Your task to perform on an android device: open app "Facebook Lite" (install if not already installed) and go to login screen Image 0: 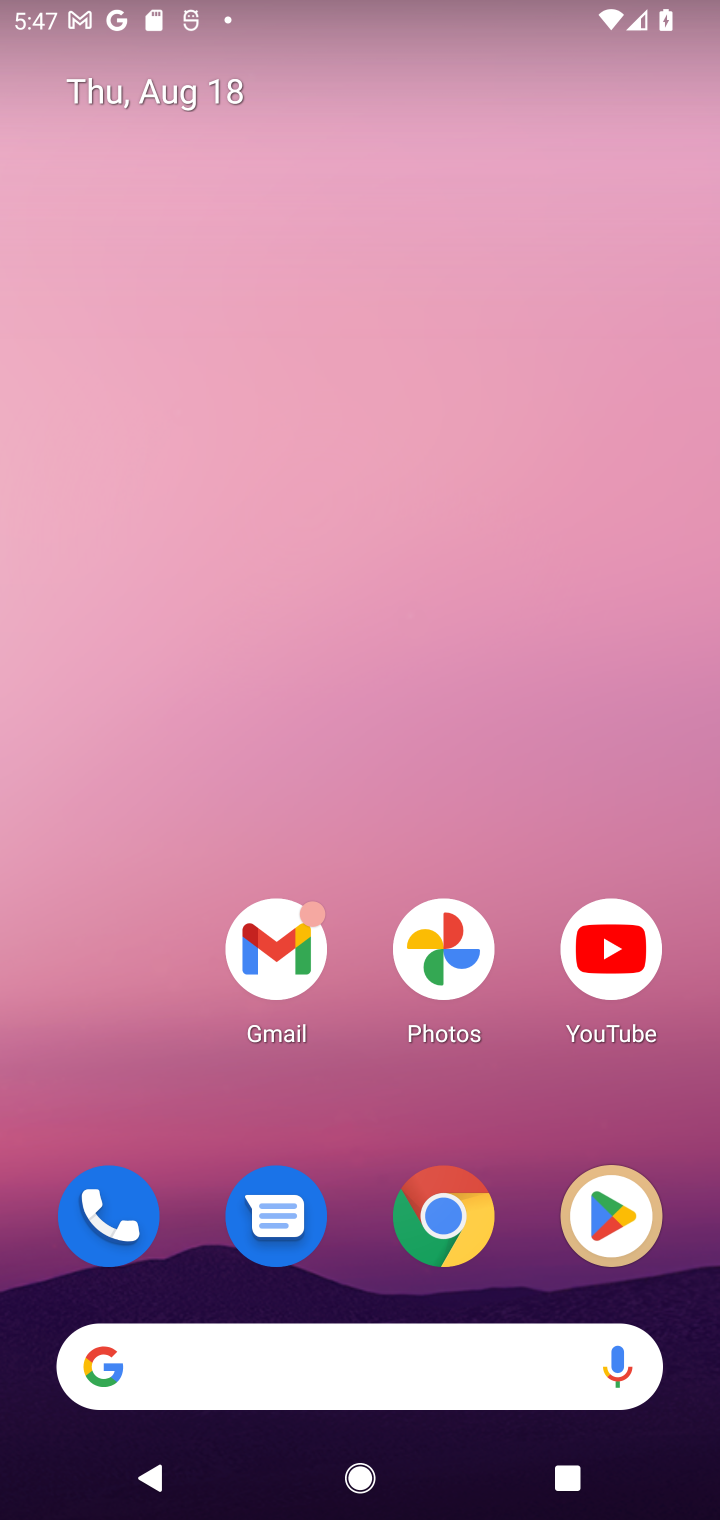
Step 0: click (616, 1219)
Your task to perform on an android device: open app "Facebook Lite" (install if not already installed) and go to login screen Image 1: 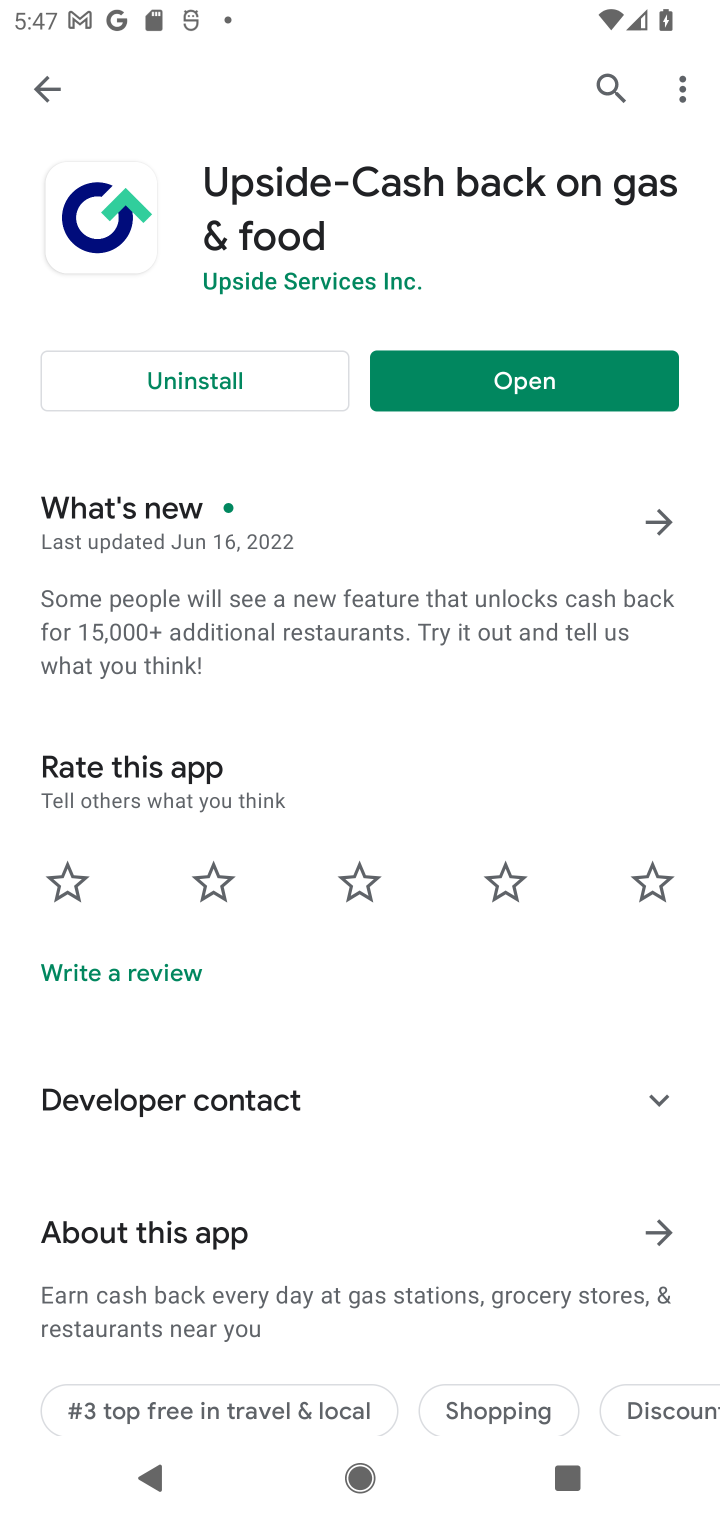
Step 1: click (590, 76)
Your task to perform on an android device: open app "Facebook Lite" (install if not already installed) and go to login screen Image 2: 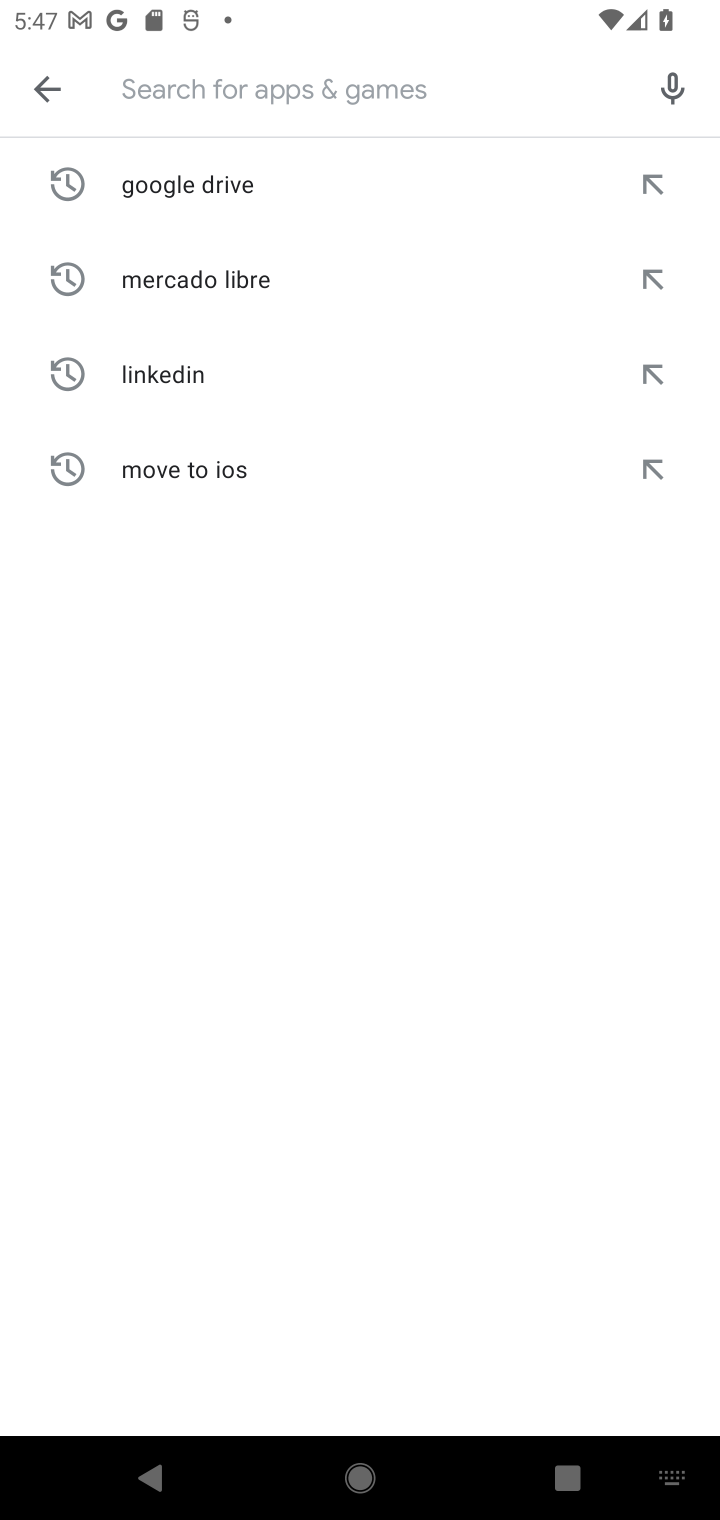
Step 2: type "Facebook Lite"
Your task to perform on an android device: open app "Facebook Lite" (install if not already installed) and go to login screen Image 3: 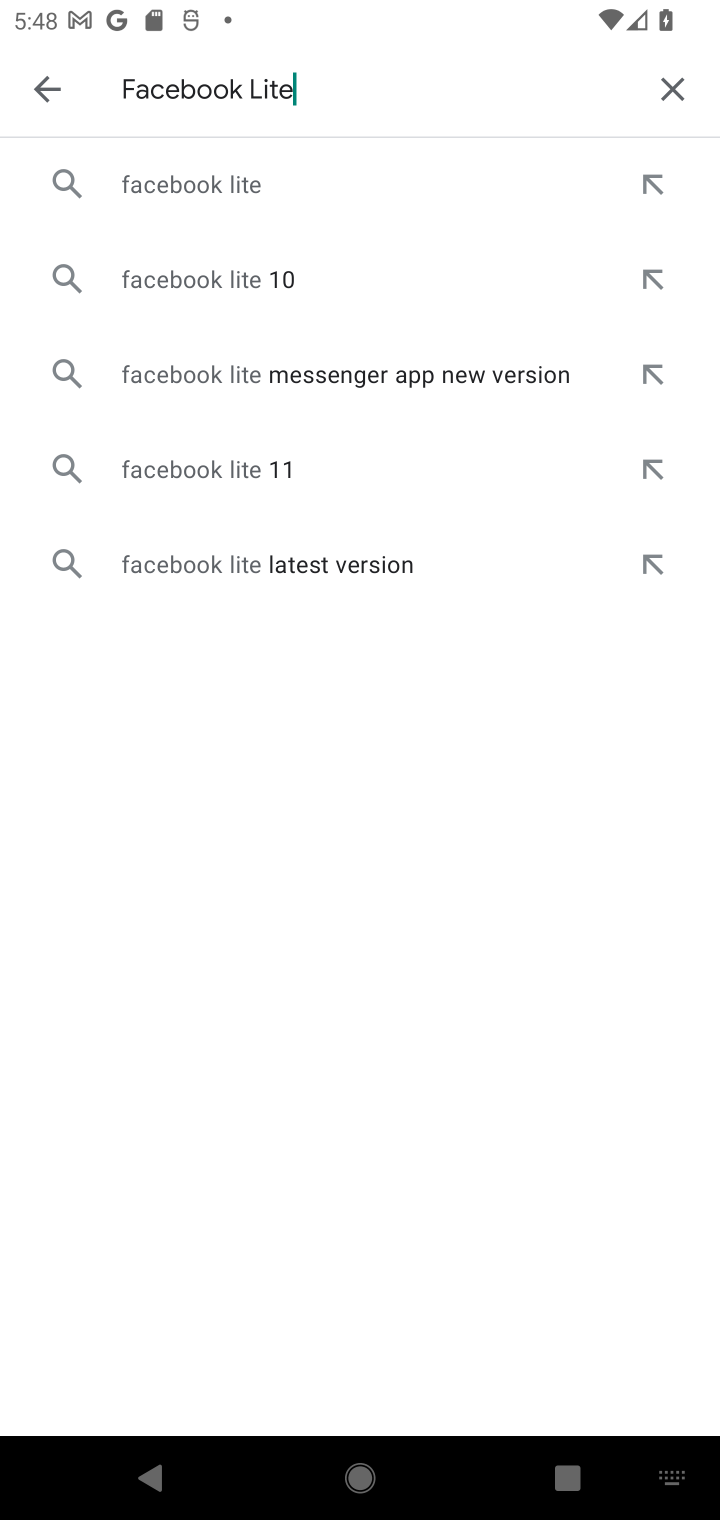
Step 3: click (194, 191)
Your task to perform on an android device: open app "Facebook Lite" (install if not already installed) and go to login screen Image 4: 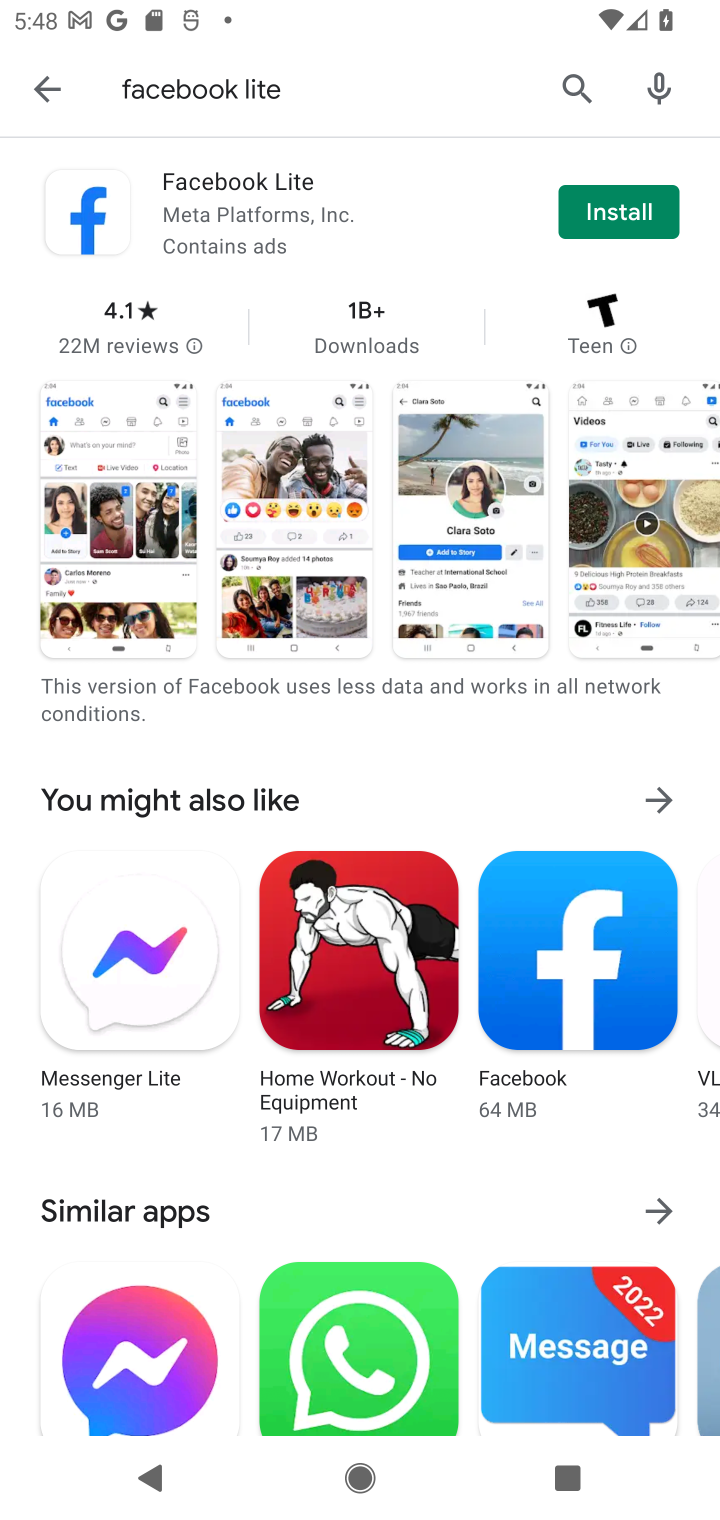
Step 4: click (610, 205)
Your task to perform on an android device: open app "Facebook Lite" (install if not already installed) and go to login screen Image 5: 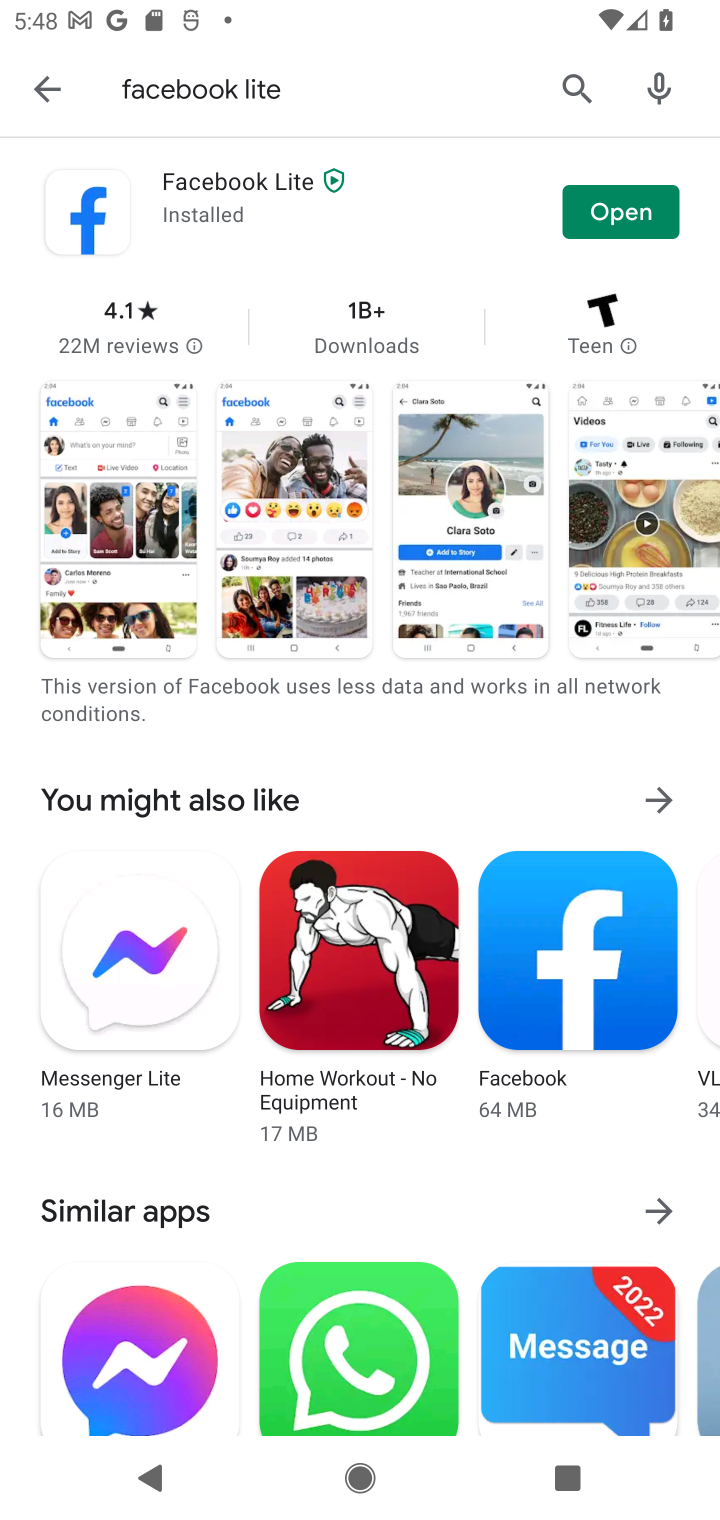
Step 5: click (616, 217)
Your task to perform on an android device: open app "Facebook Lite" (install if not already installed) and go to login screen Image 6: 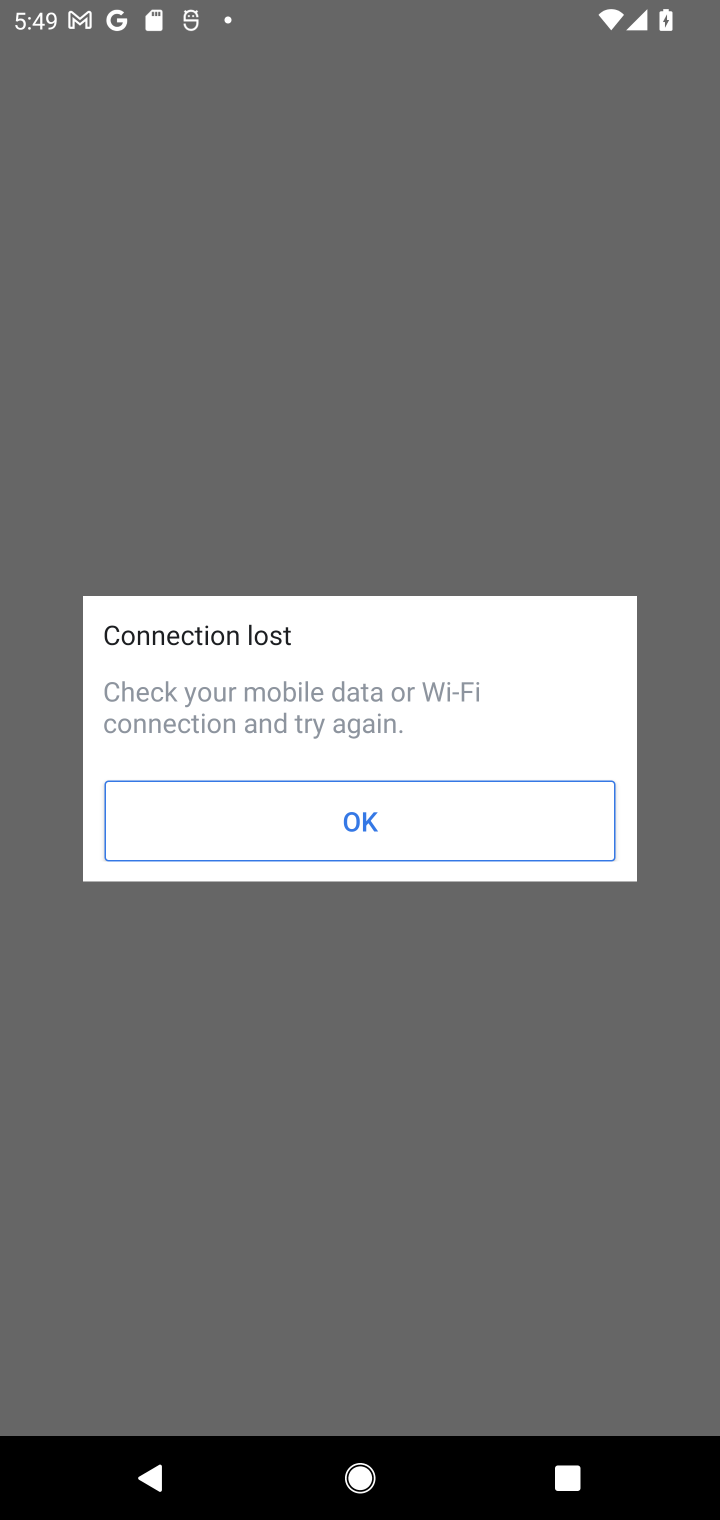
Step 6: click (371, 832)
Your task to perform on an android device: open app "Facebook Lite" (install if not already installed) and go to login screen Image 7: 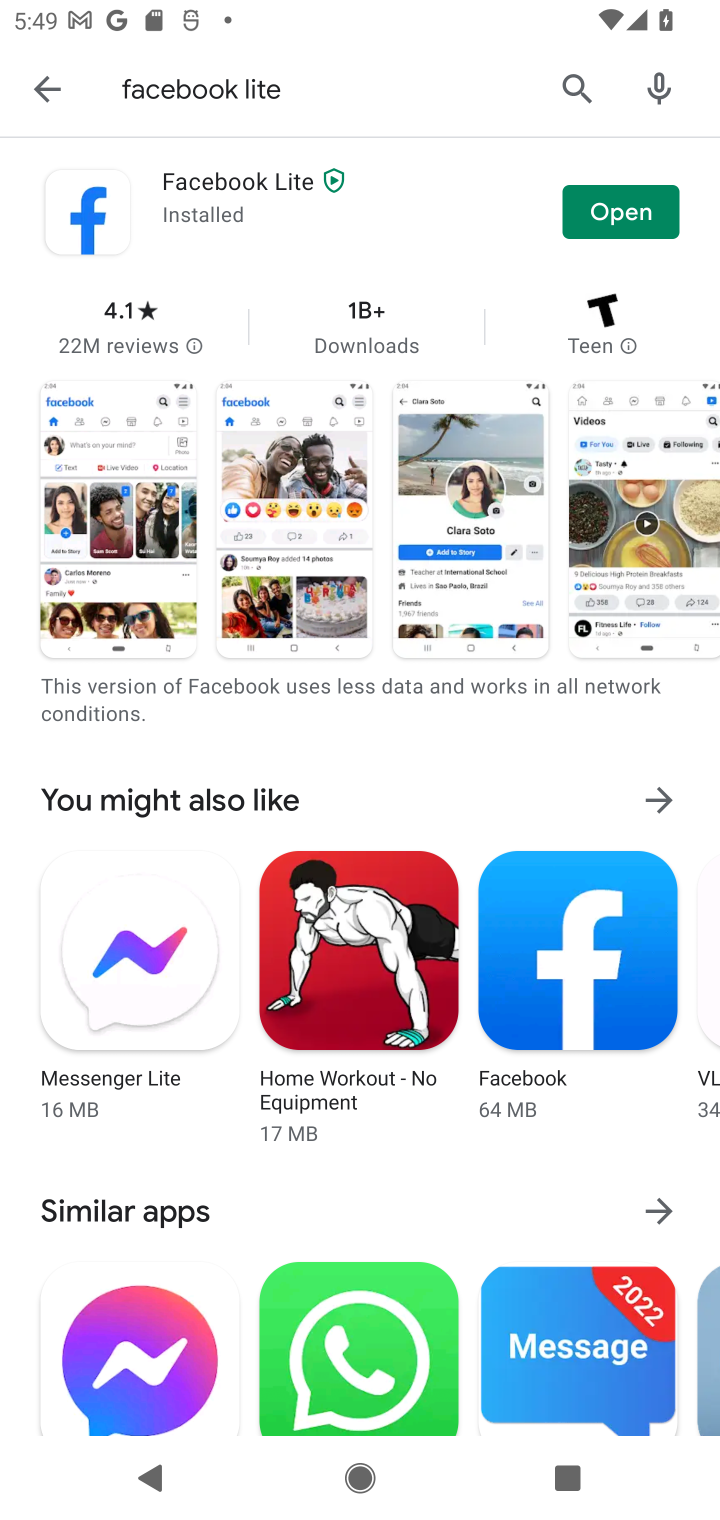
Step 7: click (618, 207)
Your task to perform on an android device: open app "Facebook Lite" (install if not already installed) and go to login screen Image 8: 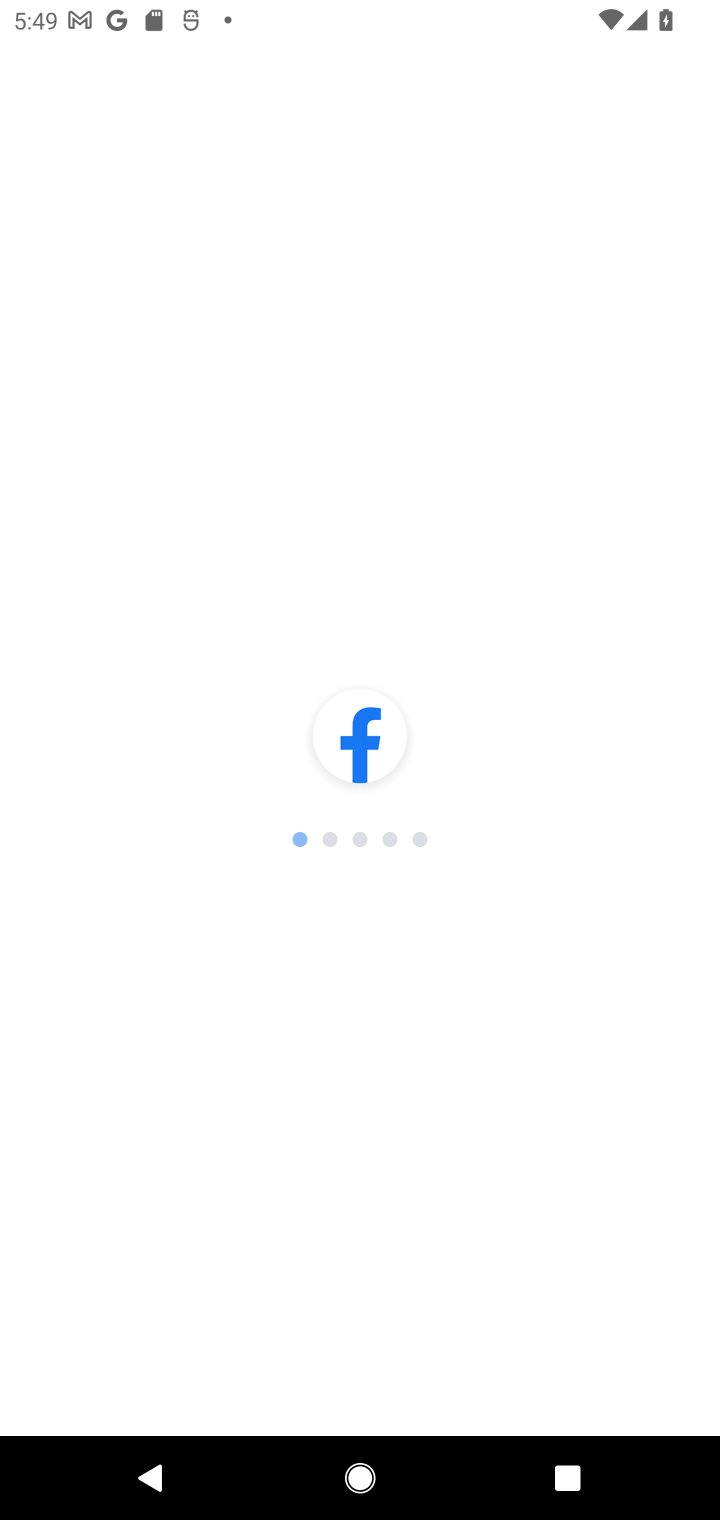
Step 8: task complete